Your task to perform on an android device: turn on improve location accuracy Image 0: 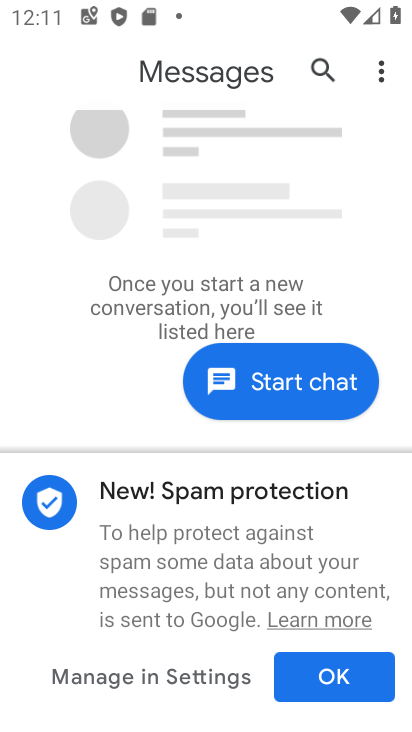
Step 0: press home button
Your task to perform on an android device: turn on improve location accuracy Image 1: 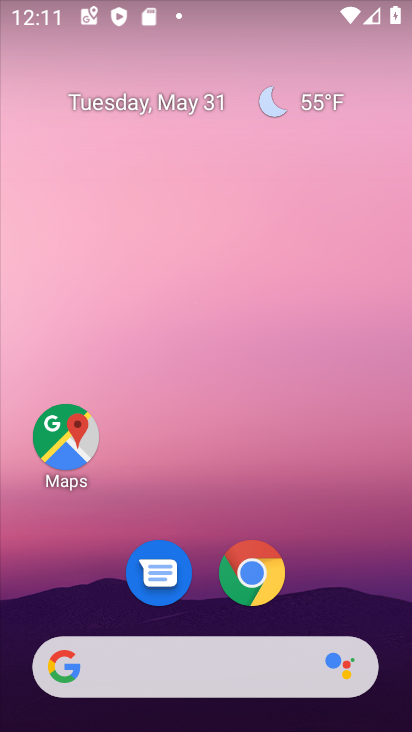
Step 1: drag from (329, 561) to (276, 56)
Your task to perform on an android device: turn on improve location accuracy Image 2: 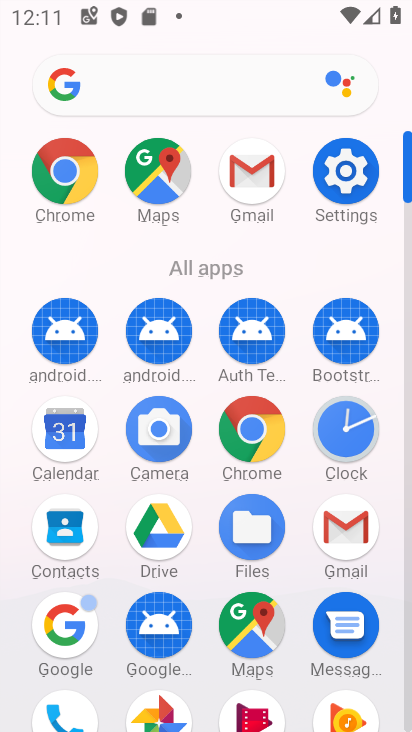
Step 2: click (342, 180)
Your task to perform on an android device: turn on improve location accuracy Image 3: 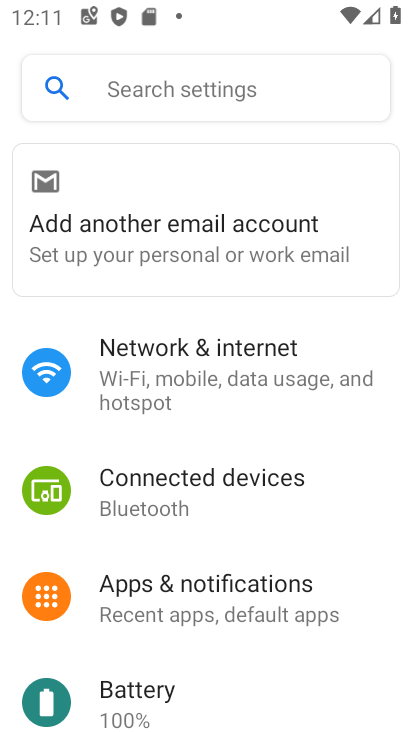
Step 3: drag from (238, 716) to (235, 211)
Your task to perform on an android device: turn on improve location accuracy Image 4: 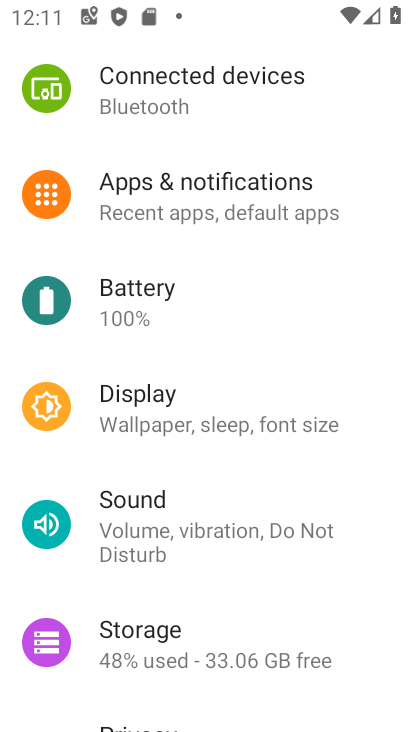
Step 4: drag from (204, 564) to (206, 105)
Your task to perform on an android device: turn on improve location accuracy Image 5: 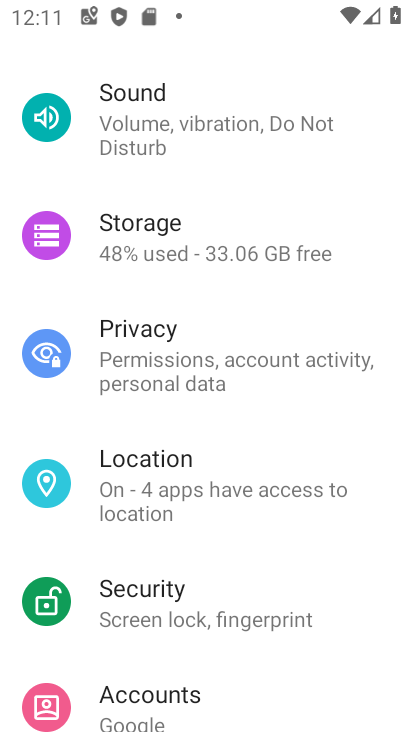
Step 5: click (162, 507)
Your task to perform on an android device: turn on improve location accuracy Image 6: 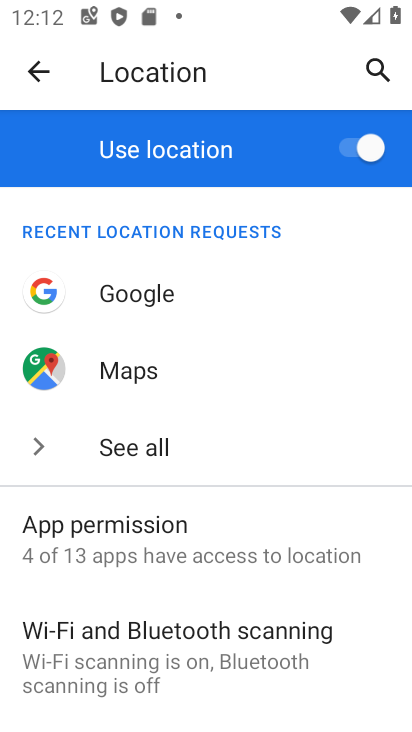
Step 6: drag from (264, 643) to (244, 180)
Your task to perform on an android device: turn on improve location accuracy Image 7: 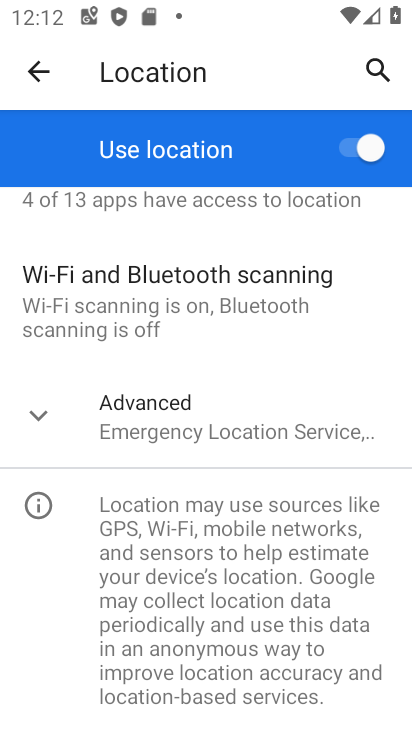
Step 7: click (163, 399)
Your task to perform on an android device: turn on improve location accuracy Image 8: 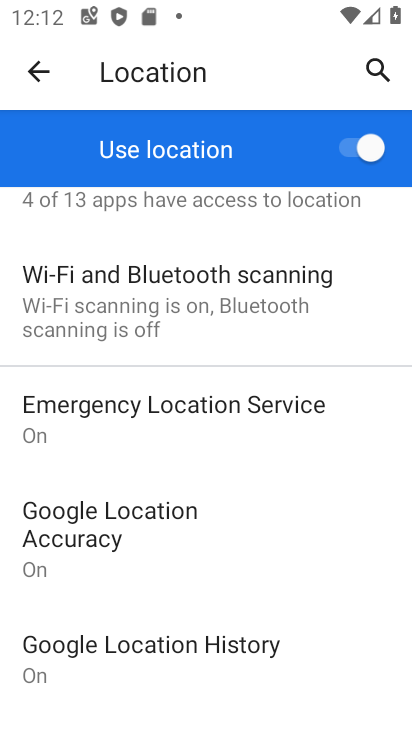
Step 8: click (142, 554)
Your task to perform on an android device: turn on improve location accuracy Image 9: 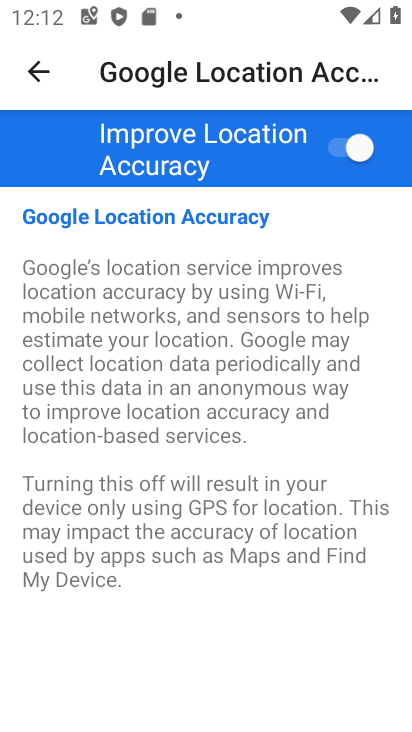
Step 9: task complete